Your task to perform on an android device: Show me popular videos on Youtube Image 0: 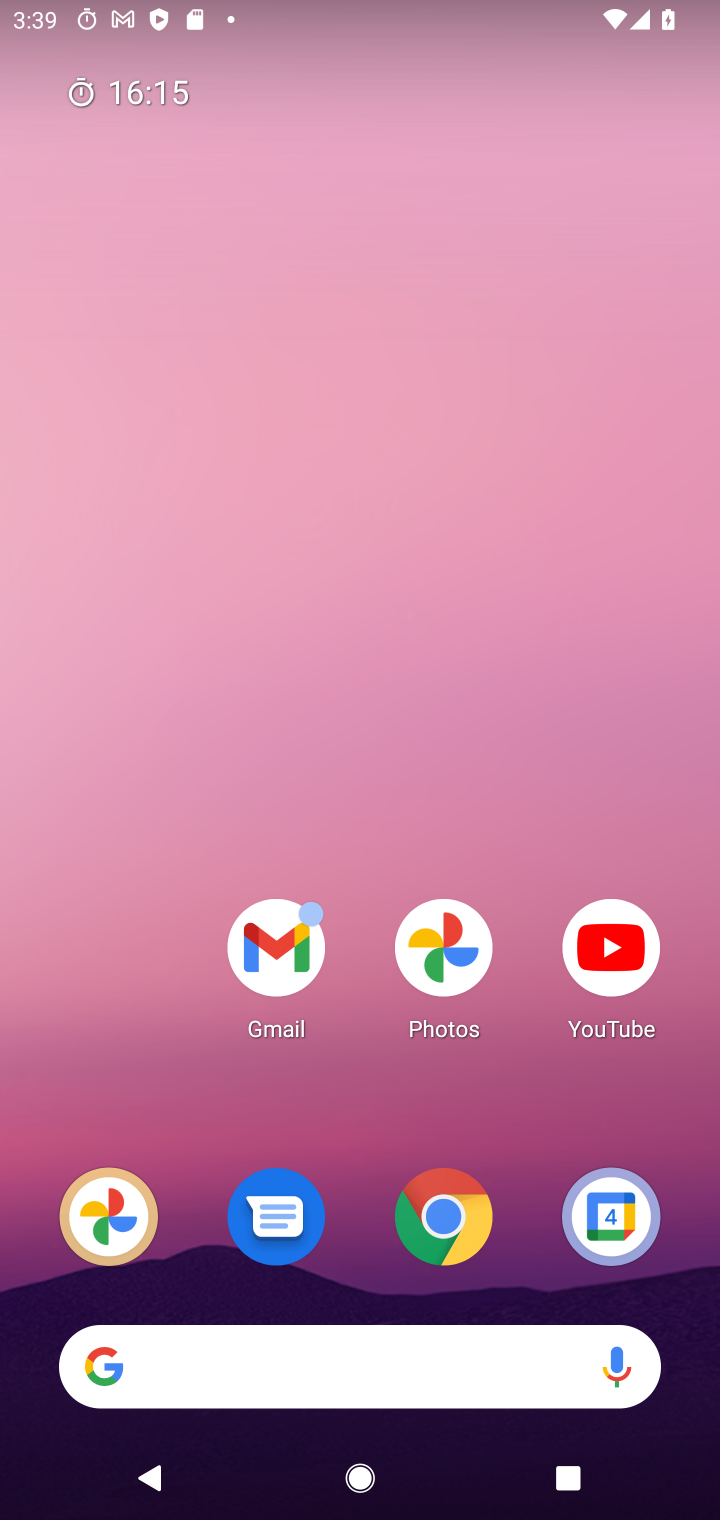
Step 0: click (626, 978)
Your task to perform on an android device: Show me popular videos on Youtube Image 1: 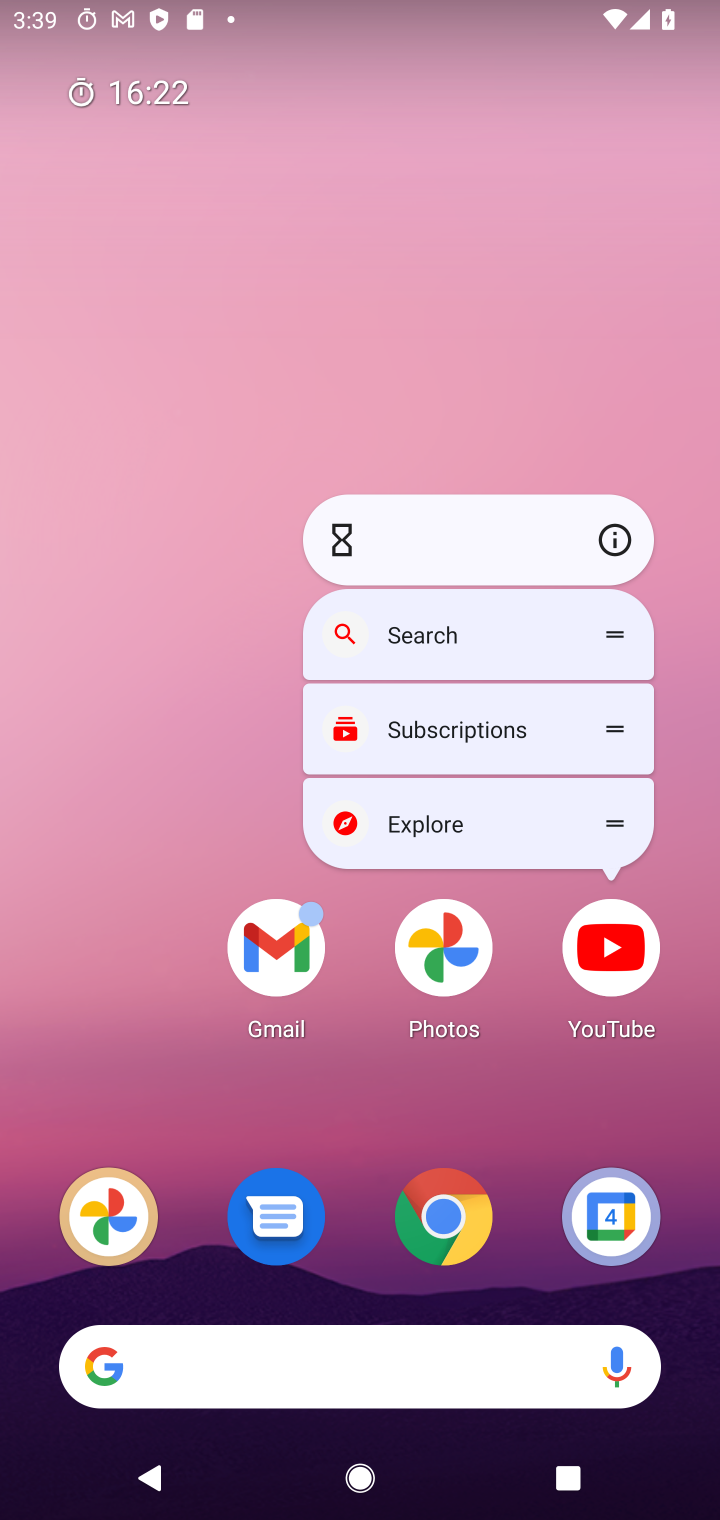
Step 1: click (615, 958)
Your task to perform on an android device: Show me popular videos on Youtube Image 2: 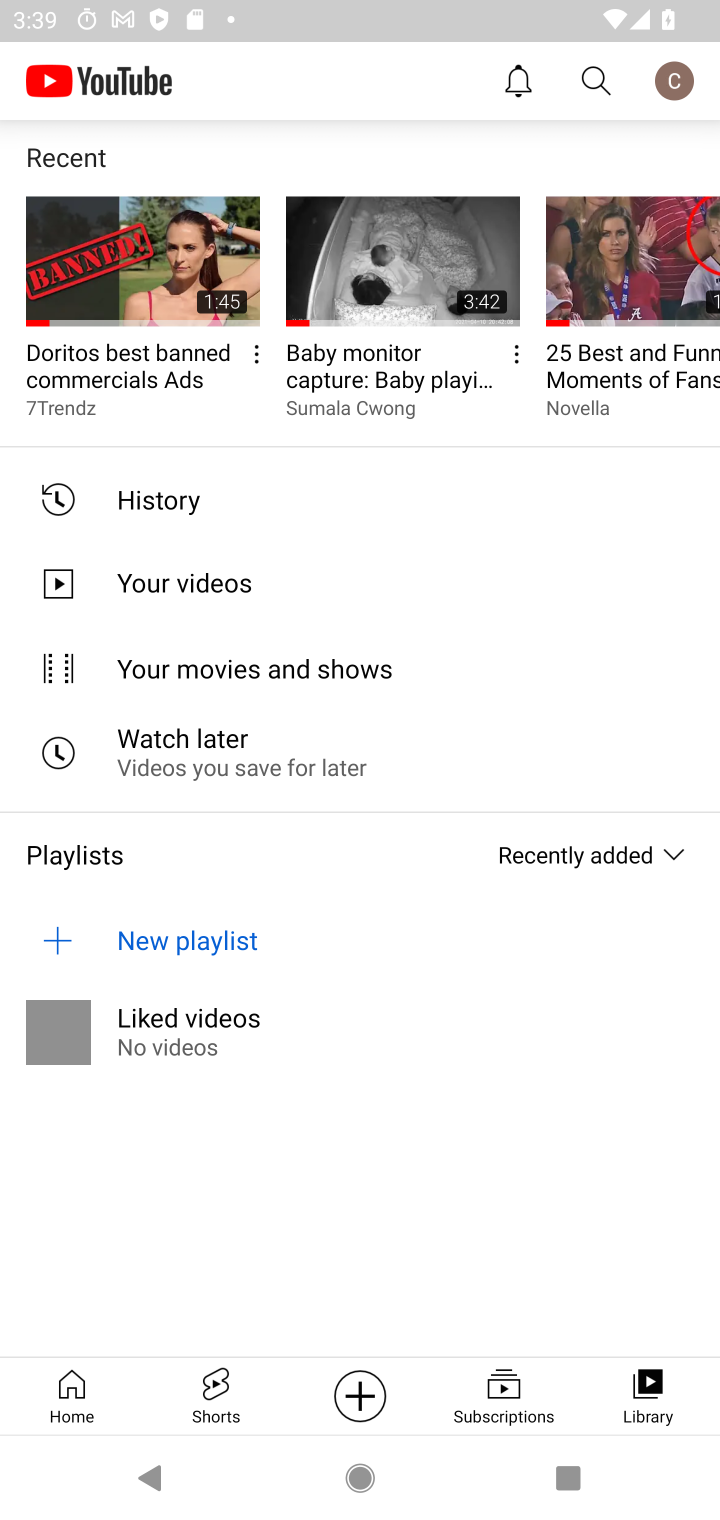
Step 2: click (50, 1397)
Your task to perform on an android device: Show me popular videos on Youtube Image 3: 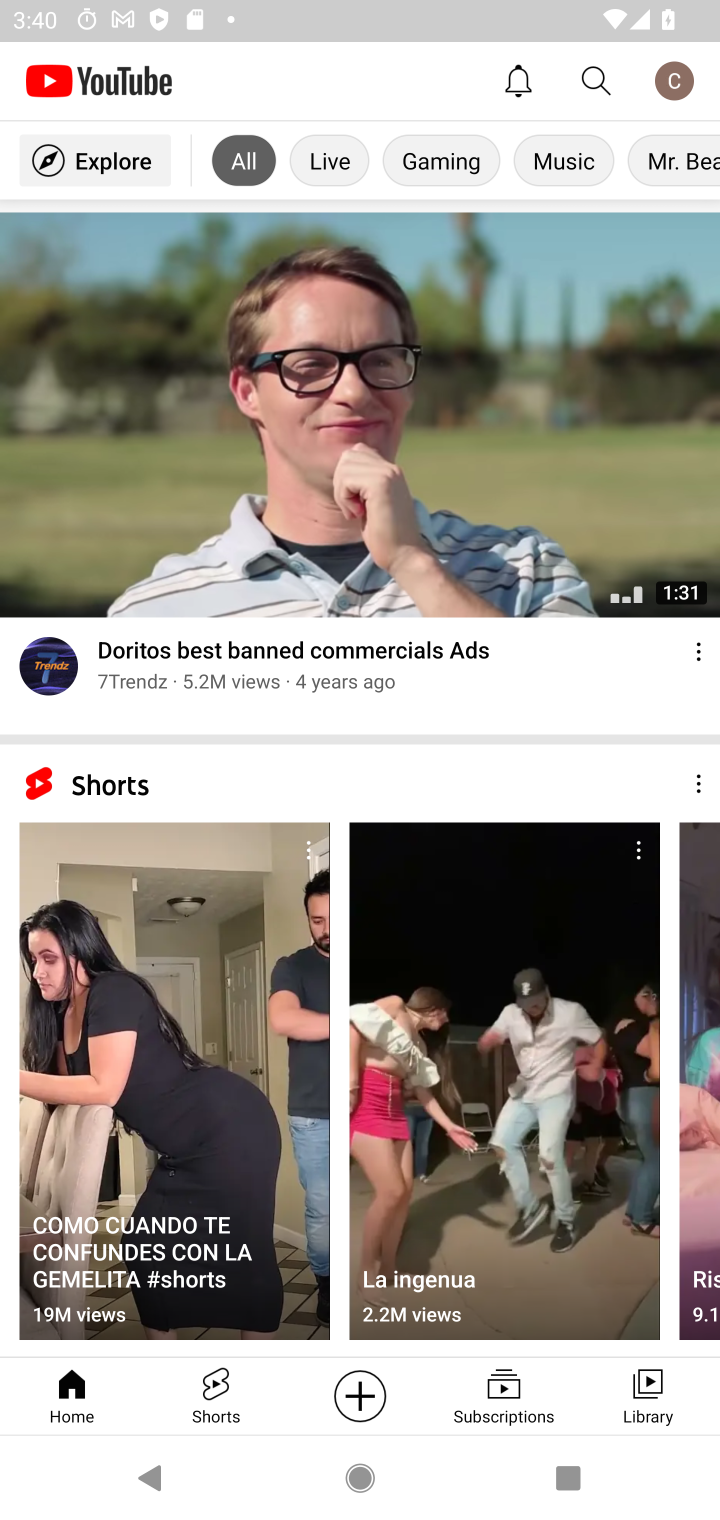
Step 3: task complete